Your task to perform on an android device: Open the phone app and click the voicemail tab. Image 0: 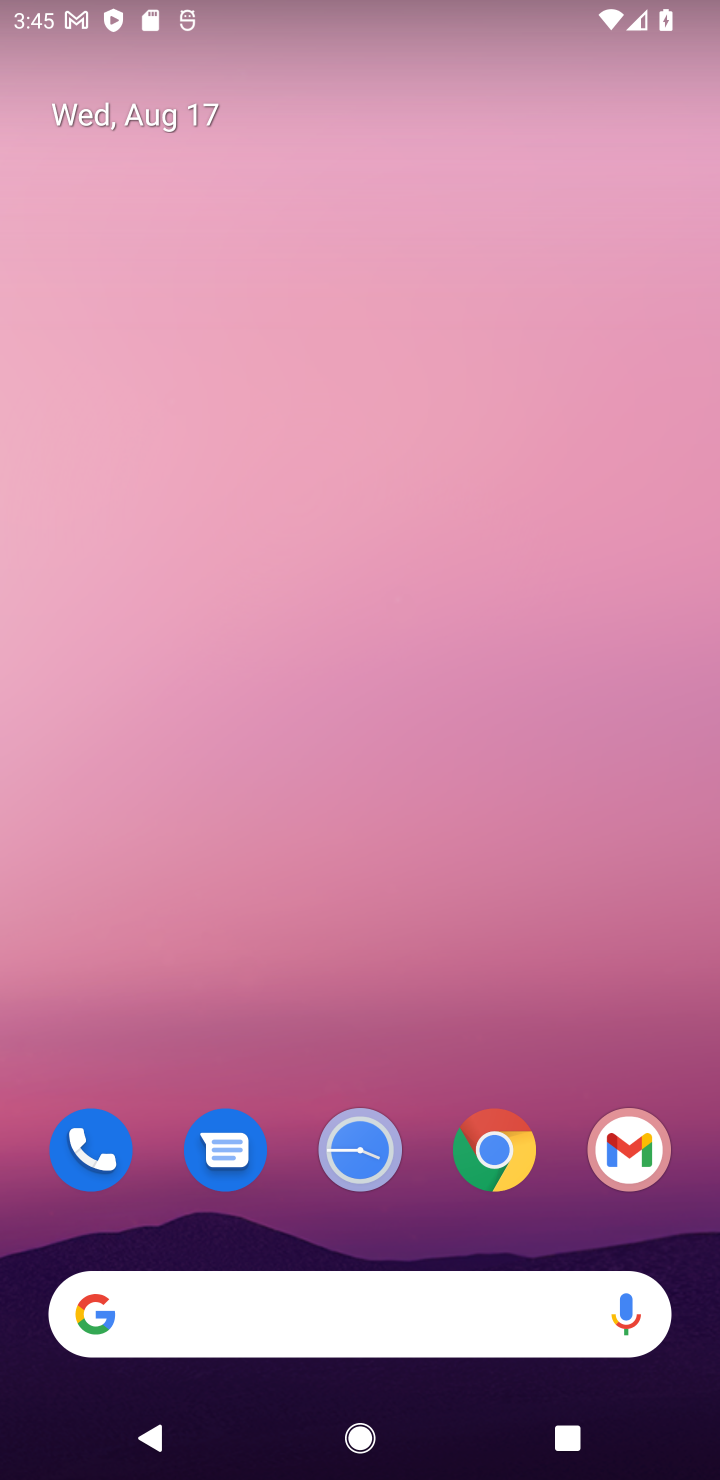
Step 0: drag from (589, 1224) to (281, 24)
Your task to perform on an android device: Open the phone app and click the voicemail tab. Image 1: 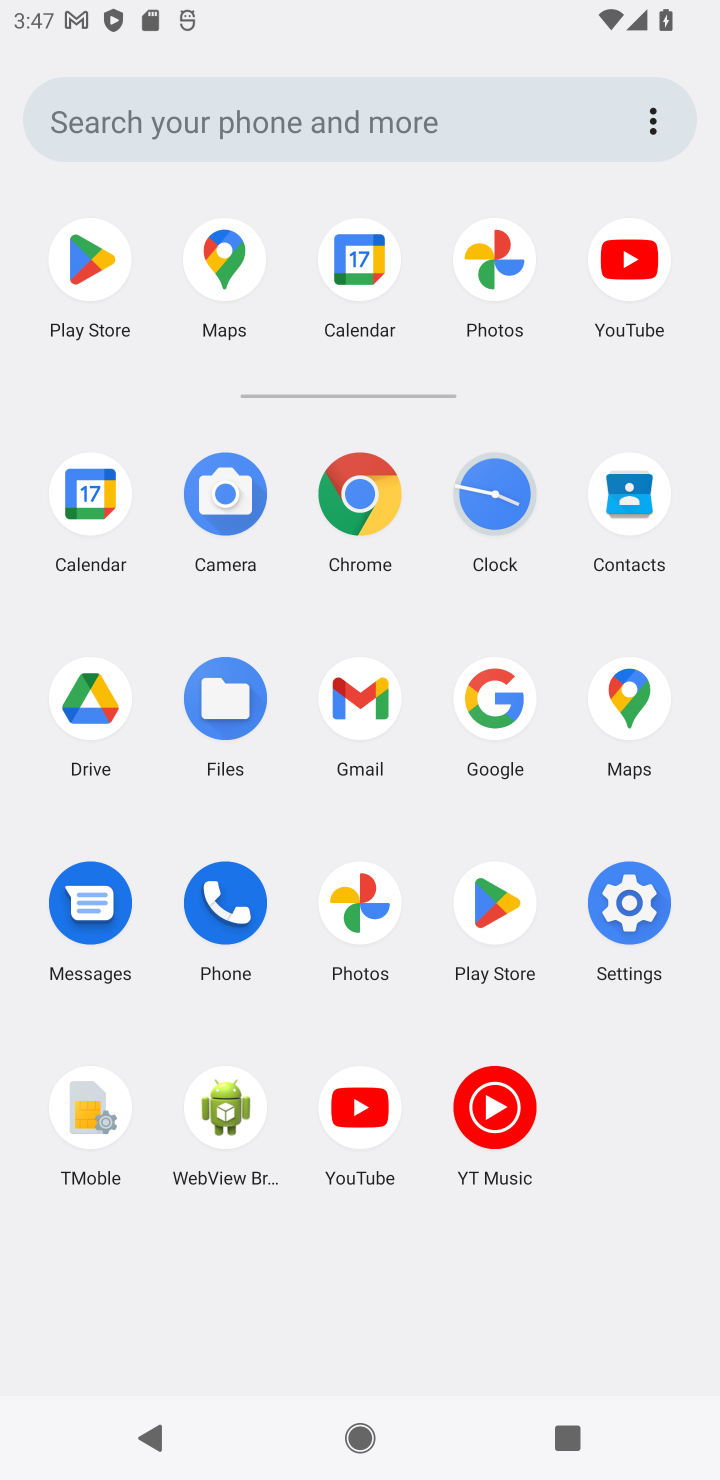
Step 1: click (211, 911)
Your task to perform on an android device: Open the phone app and click the voicemail tab. Image 2: 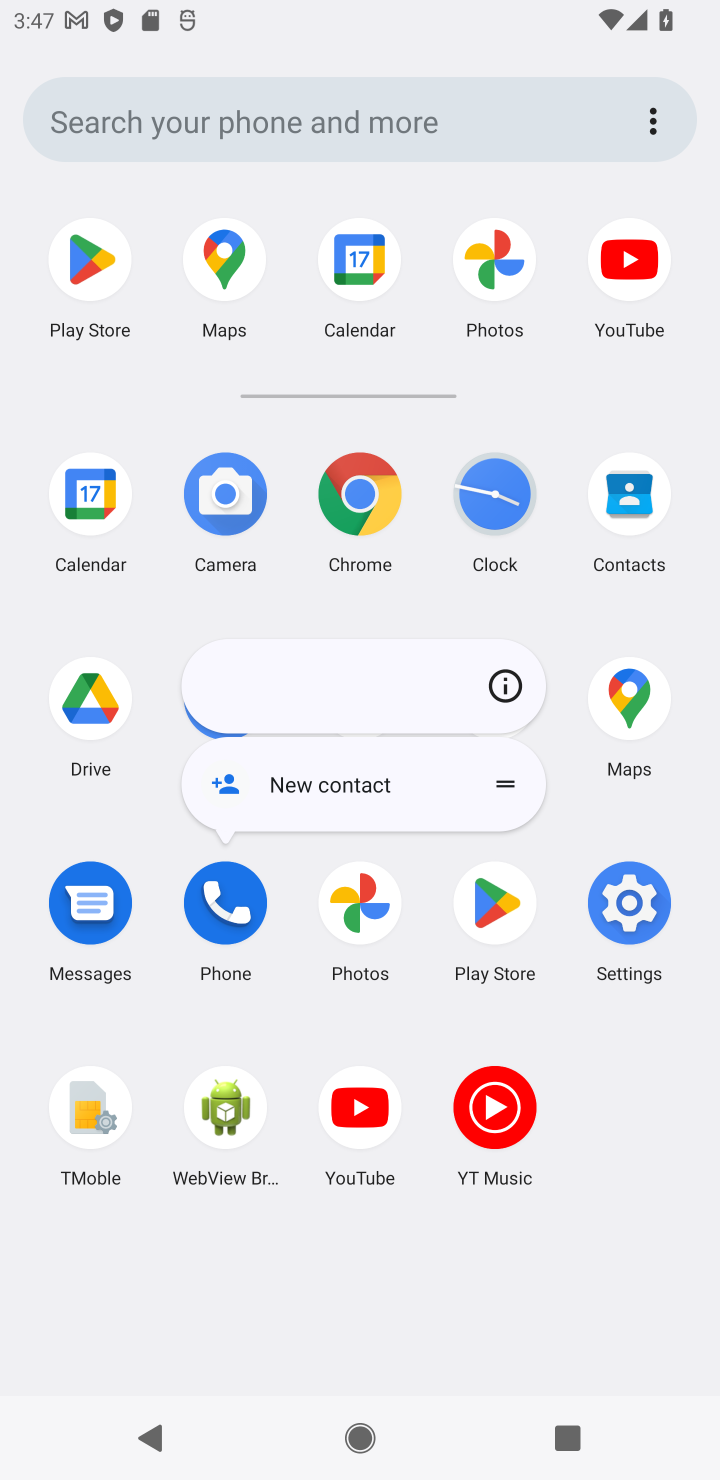
Step 2: click (211, 911)
Your task to perform on an android device: Open the phone app and click the voicemail tab. Image 3: 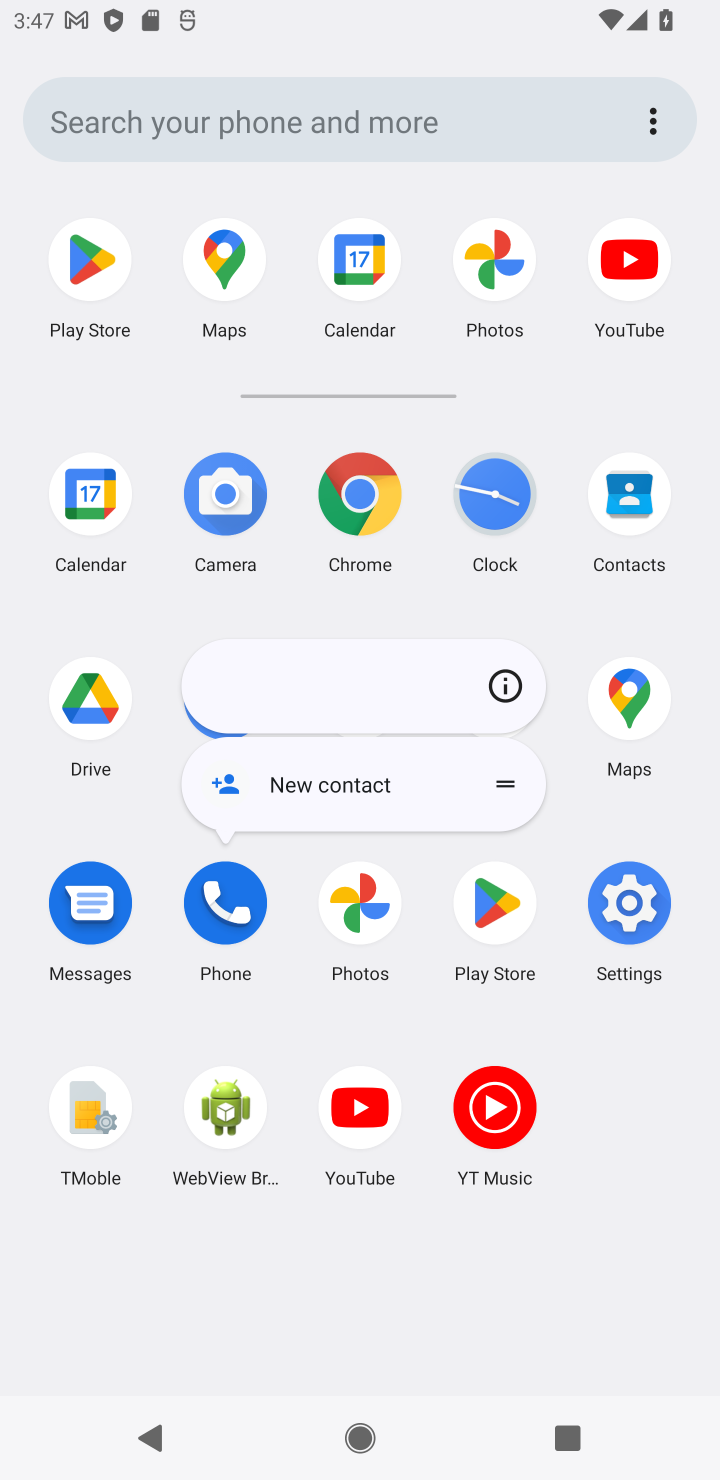
Step 3: click (211, 911)
Your task to perform on an android device: Open the phone app and click the voicemail tab. Image 4: 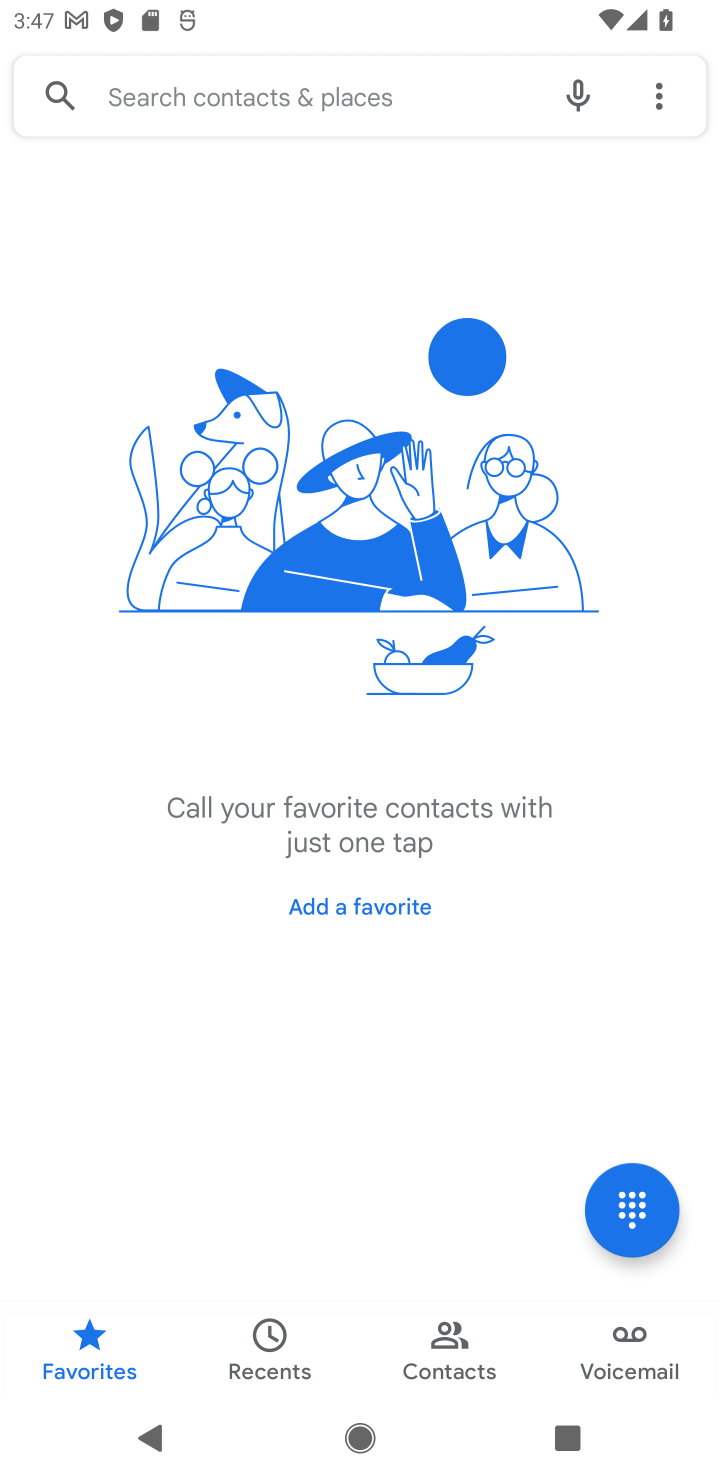
Step 4: click (635, 1335)
Your task to perform on an android device: Open the phone app and click the voicemail tab. Image 5: 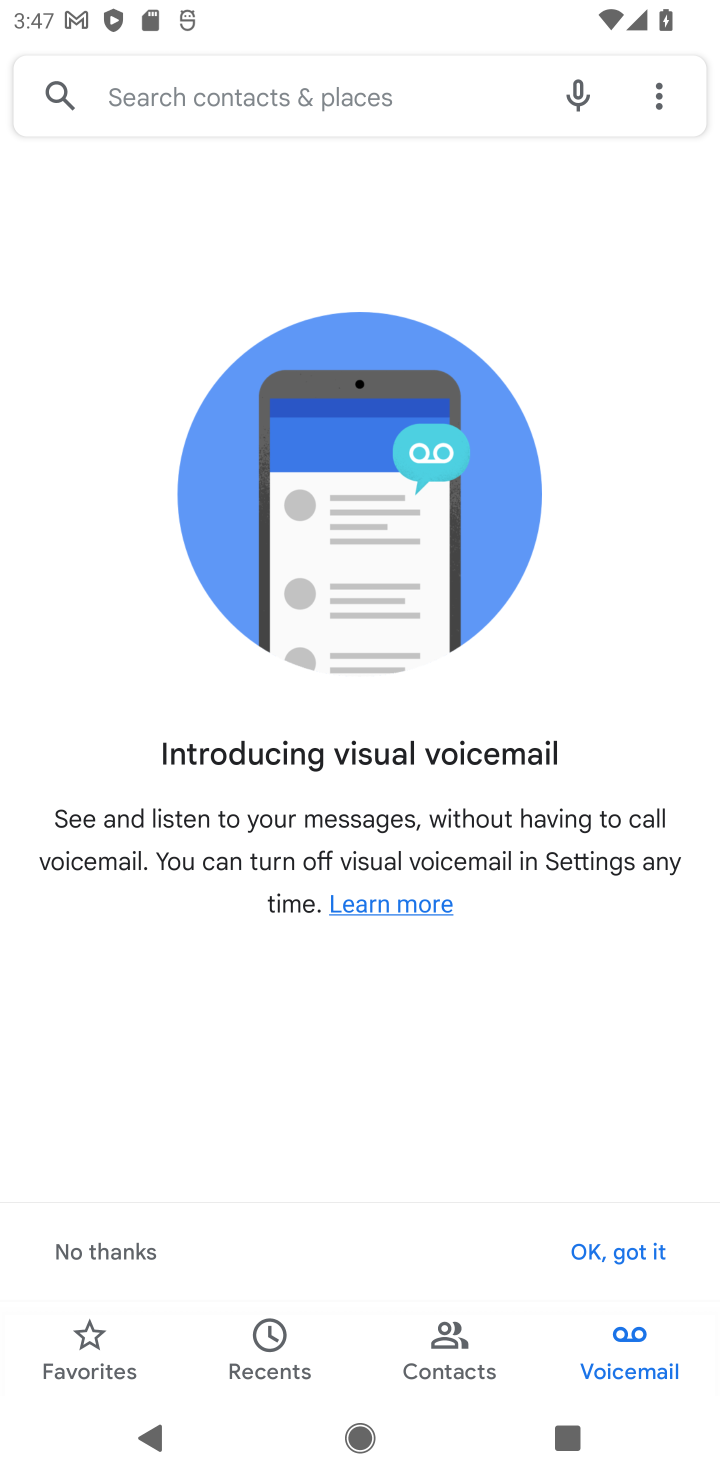
Step 5: task complete